Your task to perform on an android device: clear history in the chrome app Image 0: 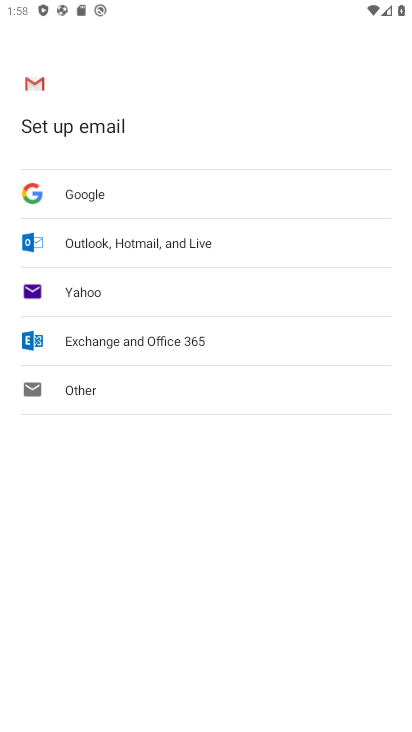
Step 0: click (136, 645)
Your task to perform on an android device: clear history in the chrome app Image 1: 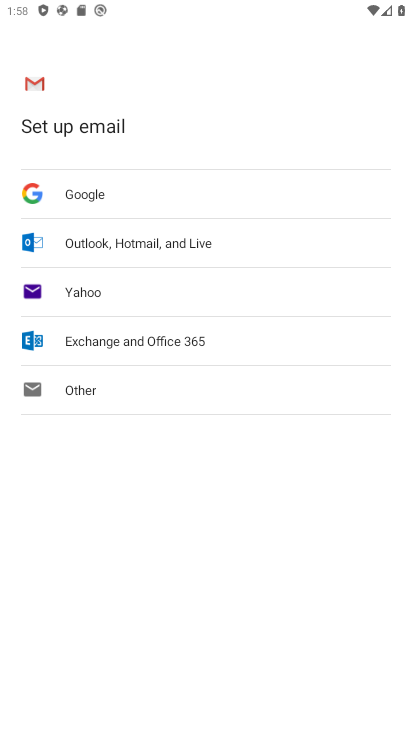
Step 1: press home button
Your task to perform on an android device: clear history in the chrome app Image 2: 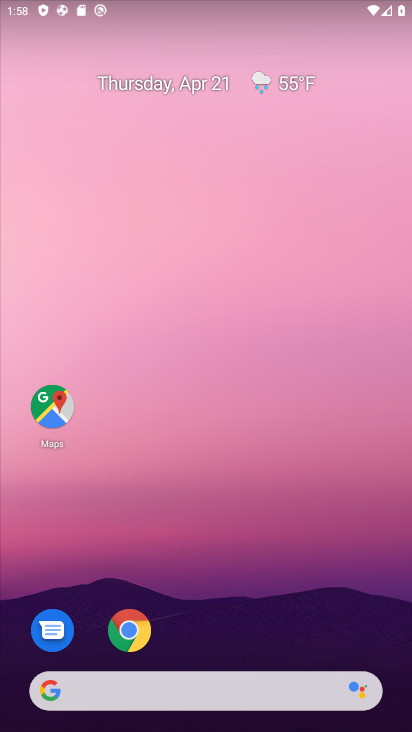
Step 2: click (119, 641)
Your task to perform on an android device: clear history in the chrome app Image 3: 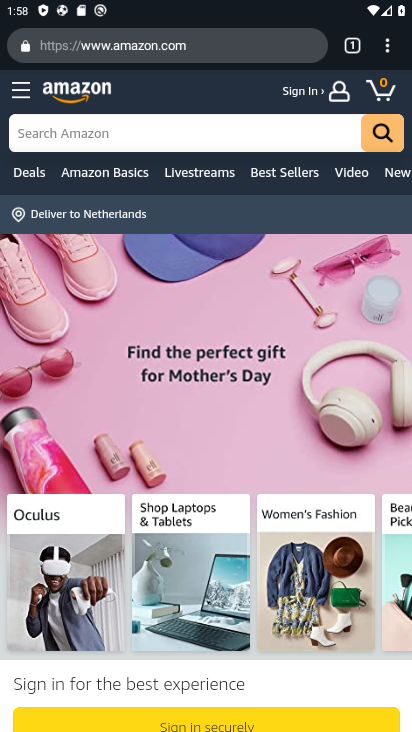
Step 3: drag from (387, 51) to (264, 308)
Your task to perform on an android device: clear history in the chrome app Image 4: 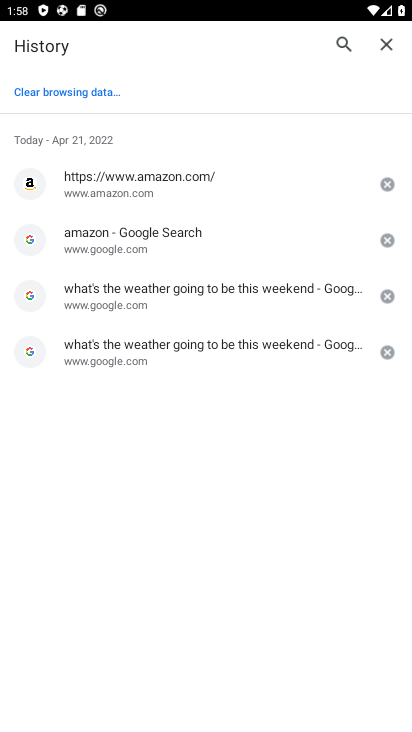
Step 4: click (67, 92)
Your task to perform on an android device: clear history in the chrome app Image 5: 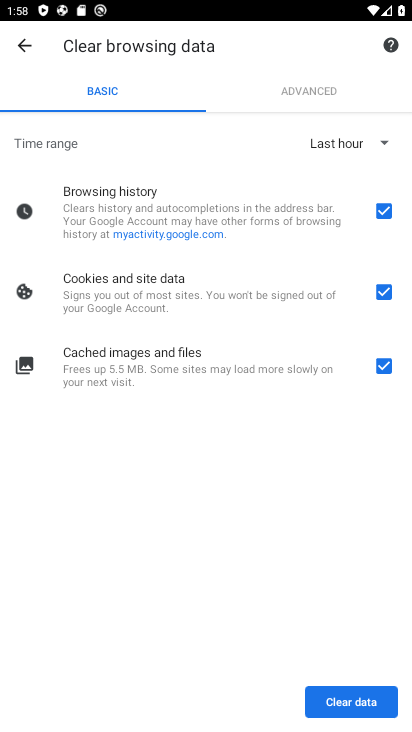
Step 5: click (362, 711)
Your task to perform on an android device: clear history in the chrome app Image 6: 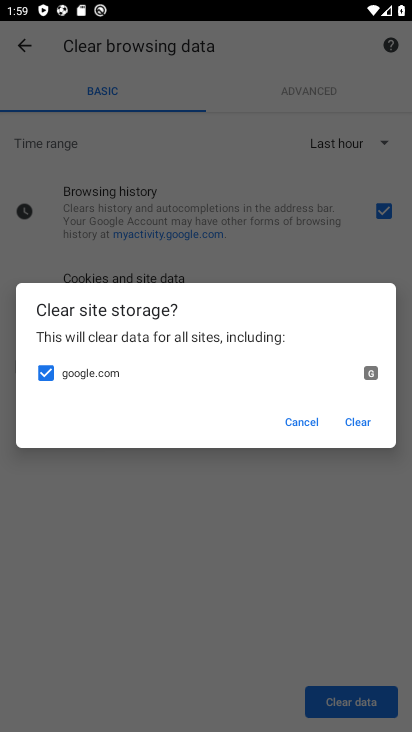
Step 6: click (361, 418)
Your task to perform on an android device: clear history in the chrome app Image 7: 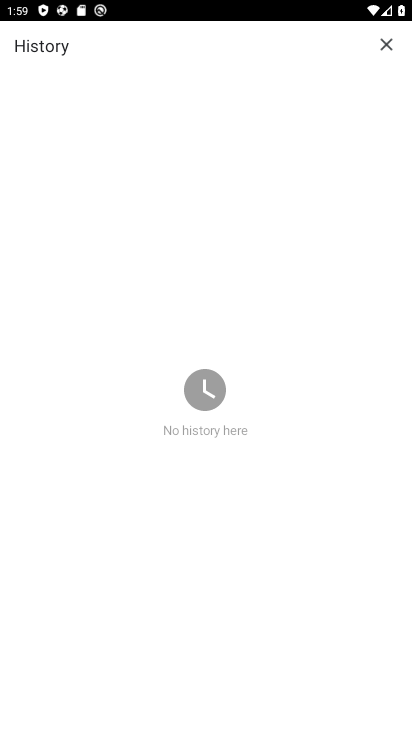
Step 7: task complete